Your task to perform on an android device: refresh tabs in the chrome app Image 0: 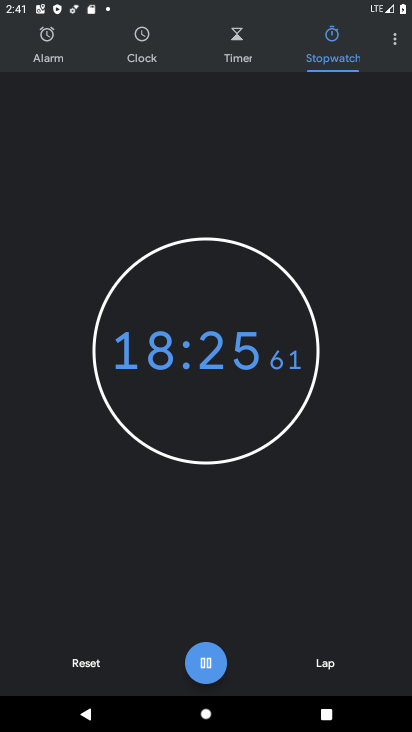
Step 0: press home button
Your task to perform on an android device: refresh tabs in the chrome app Image 1: 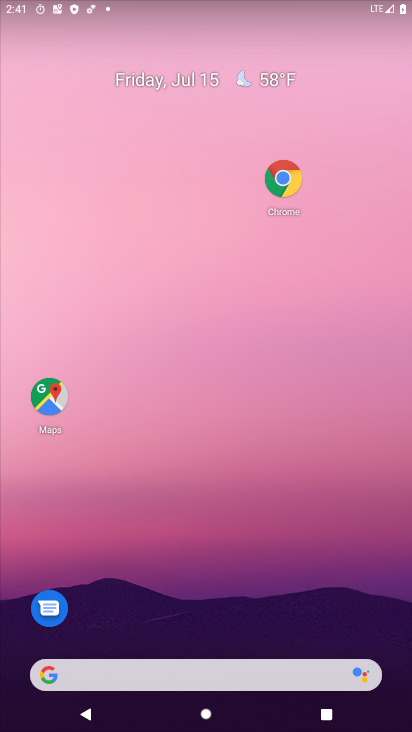
Step 1: drag from (232, 610) to (202, 92)
Your task to perform on an android device: refresh tabs in the chrome app Image 2: 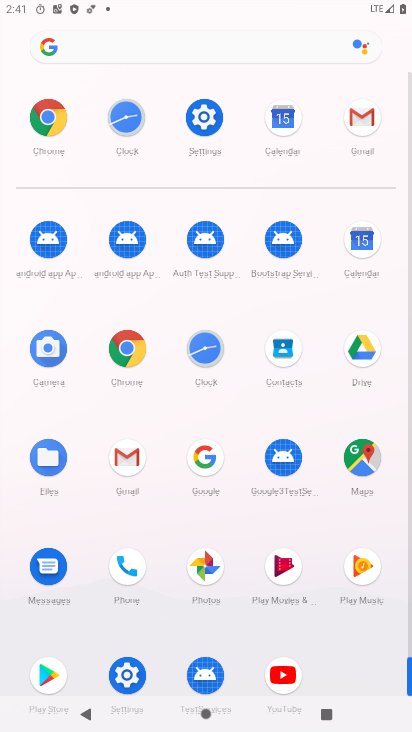
Step 2: click (136, 349)
Your task to perform on an android device: refresh tabs in the chrome app Image 3: 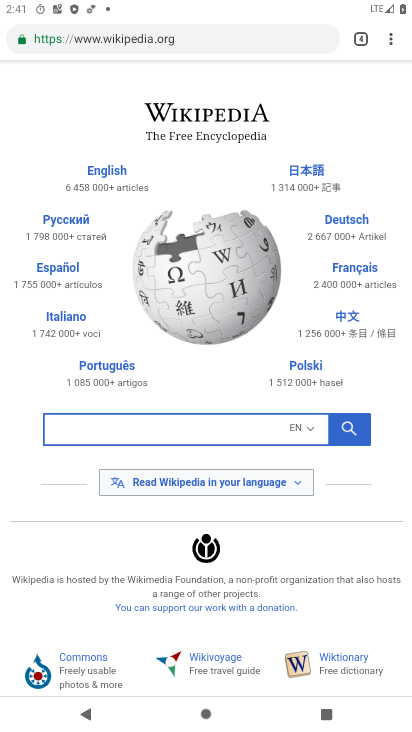
Step 3: click (394, 35)
Your task to perform on an android device: refresh tabs in the chrome app Image 4: 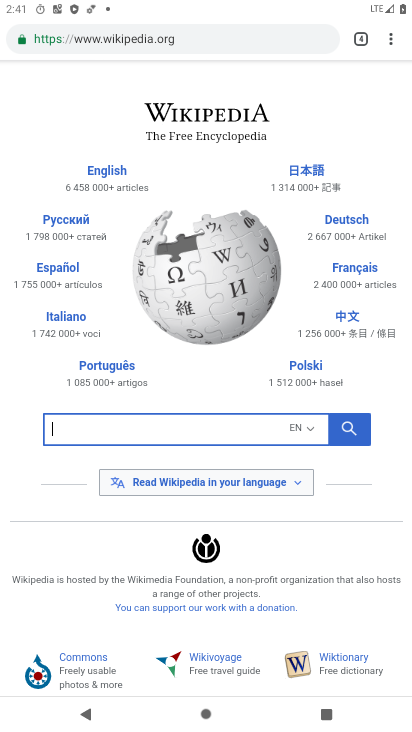
Step 4: task complete